Your task to perform on an android device: toggle show notifications on the lock screen Image 0: 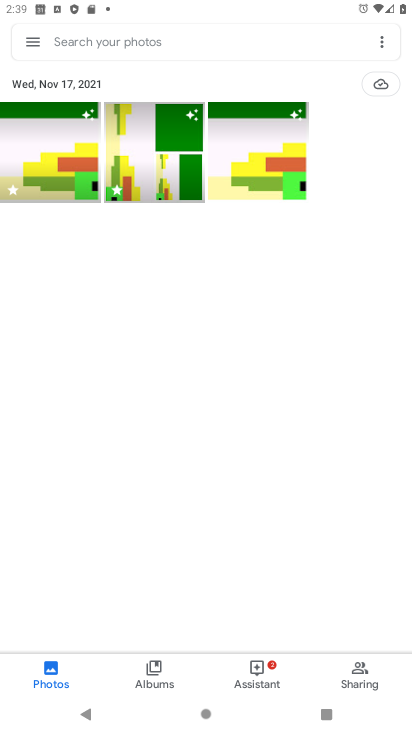
Step 0: press home button
Your task to perform on an android device: toggle show notifications on the lock screen Image 1: 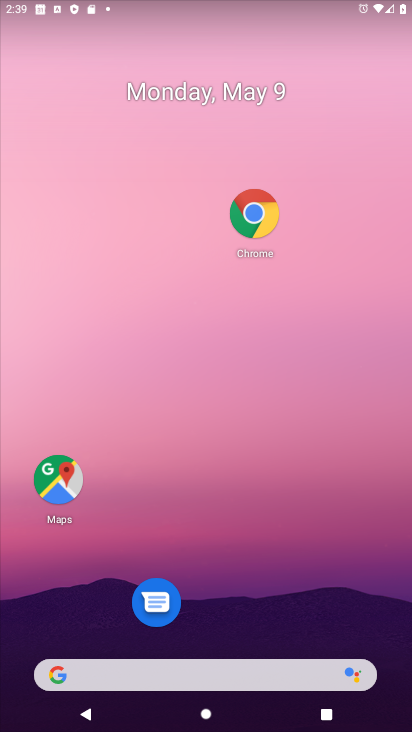
Step 1: drag from (299, 603) to (268, 53)
Your task to perform on an android device: toggle show notifications on the lock screen Image 2: 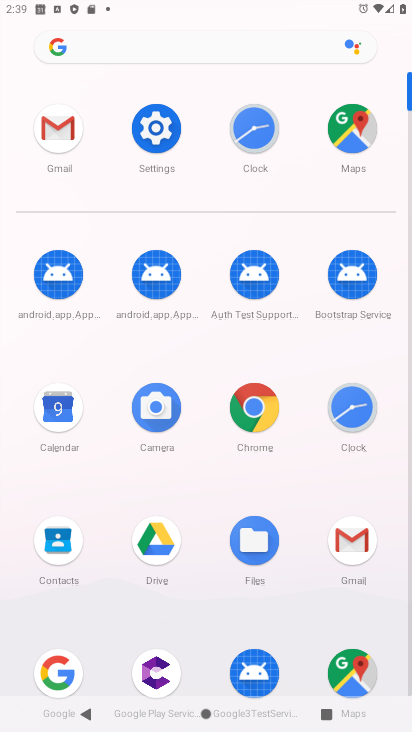
Step 2: click (159, 155)
Your task to perform on an android device: toggle show notifications on the lock screen Image 3: 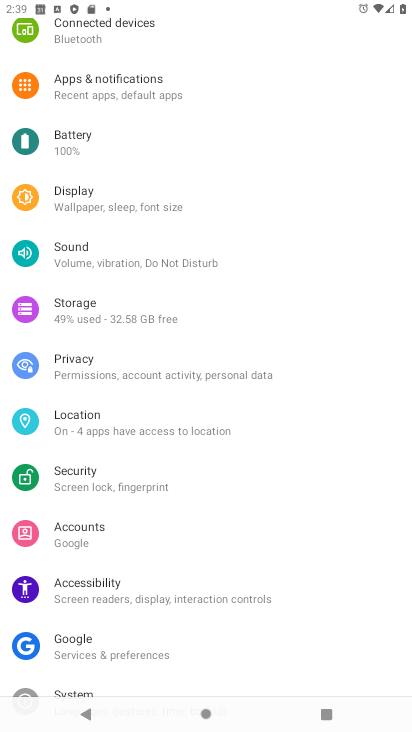
Step 3: click (175, 96)
Your task to perform on an android device: toggle show notifications on the lock screen Image 4: 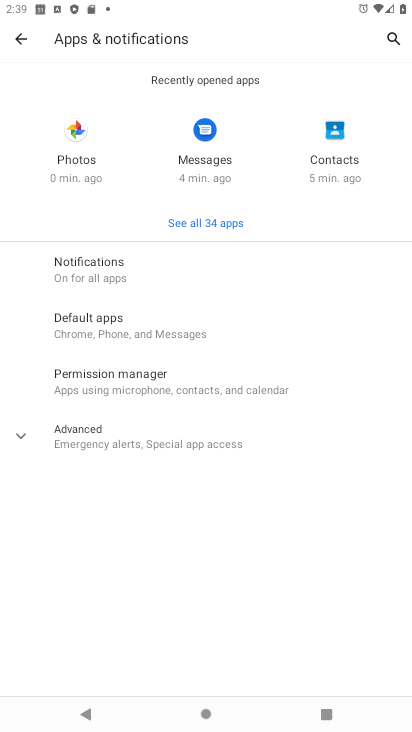
Step 4: click (159, 283)
Your task to perform on an android device: toggle show notifications on the lock screen Image 5: 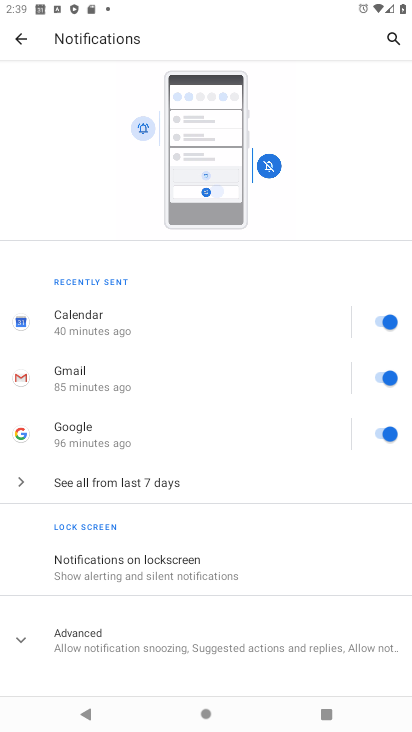
Step 5: click (140, 664)
Your task to perform on an android device: toggle show notifications on the lock screen Image 6: 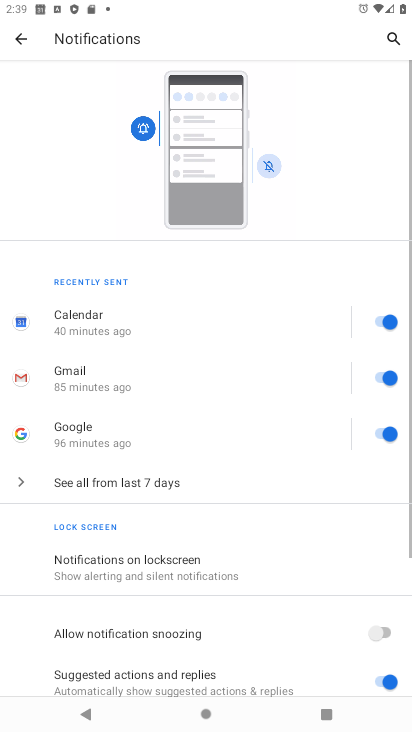
Step 6: drag from (183, 631) to (205, 421)
Your task to perform on an android device: toggle show notifications on the lock screen Image 7: 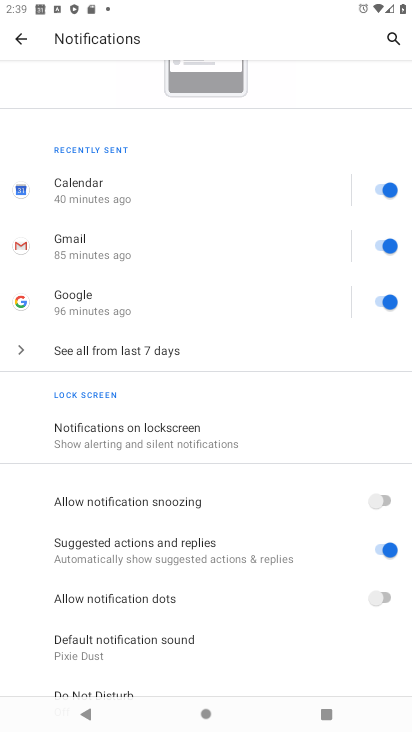
Step 7: click (195, 419)
Your task to perform on an android device: toggle show notifications on the lock screen Image 8: 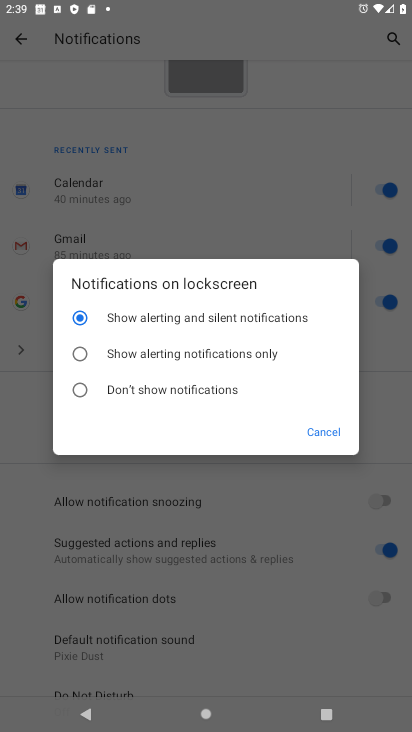
Step 8: click (239, 369)
Your task to perform on an android device: toggle show notifications on the lock screen Image 9: 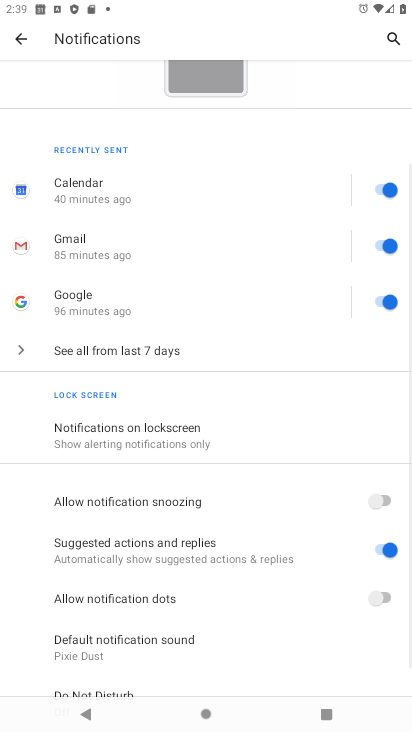
Step 9: task complete